Your task to perform on an android device: turn on improve location accuracy Image 0: 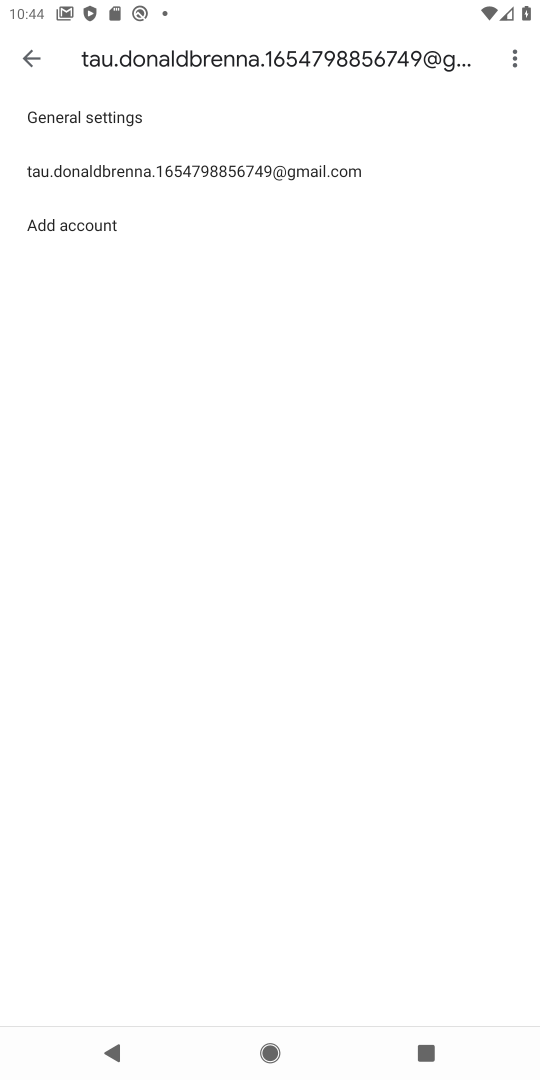
Step 0: press home button
Your task to perform on an android device: turn on improve location accuracy Image 1: 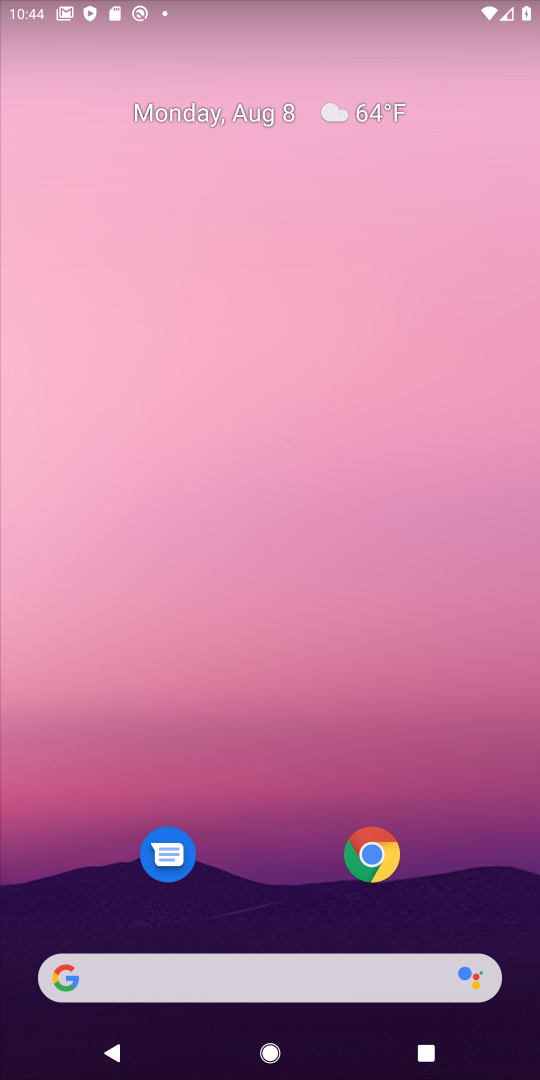
Step 1: drag from (282, 857) to (456, 54)
Your task to perform on an android device: turn on improve location accuracy Image 2: 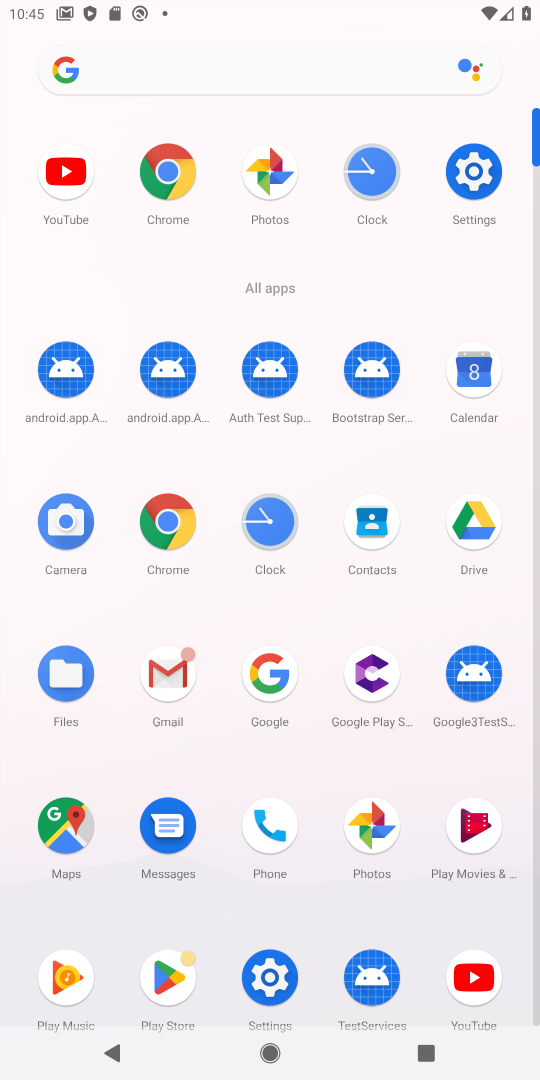
Step 2: click (467, 164)
Your task to perform on an android device: turn on improve location accuracy Image 3: 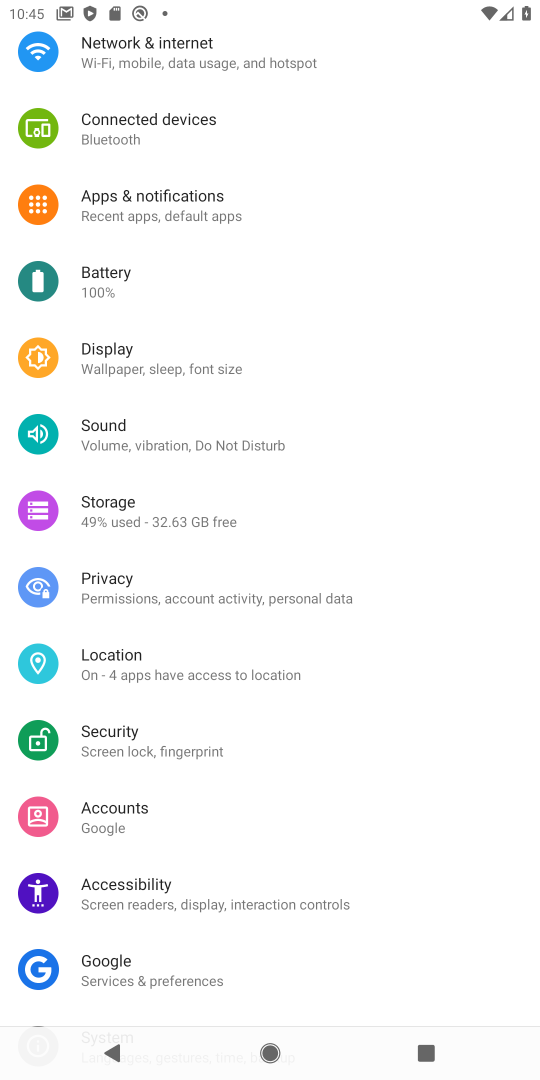
Step 3: click (253, 672)
Your task to perform on an android device: turn on improve location accuracy Image 4: 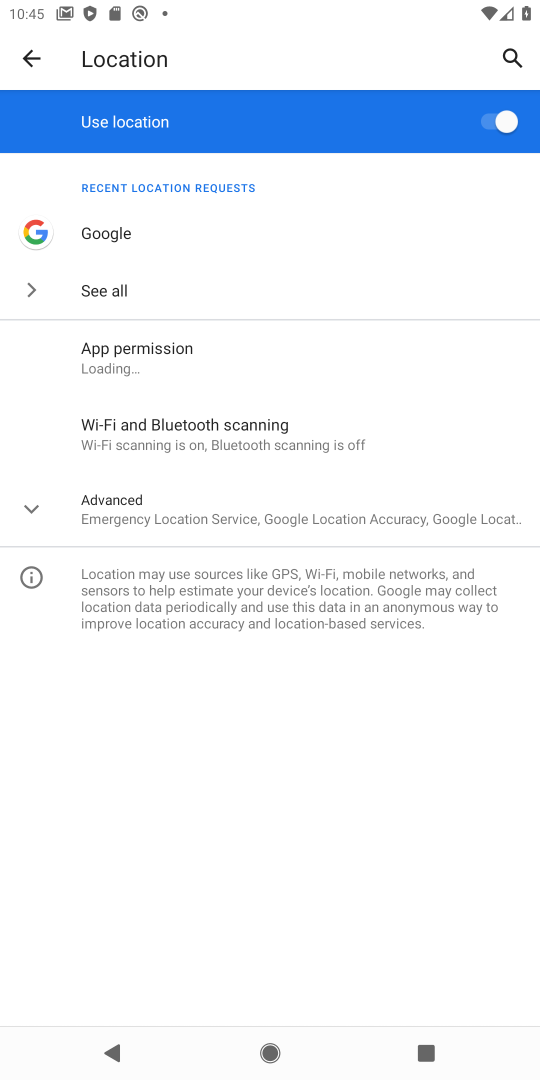
Step 4: click (214, 535)
Your task to perform on an android device: turn on improve location accuracy Image 5: 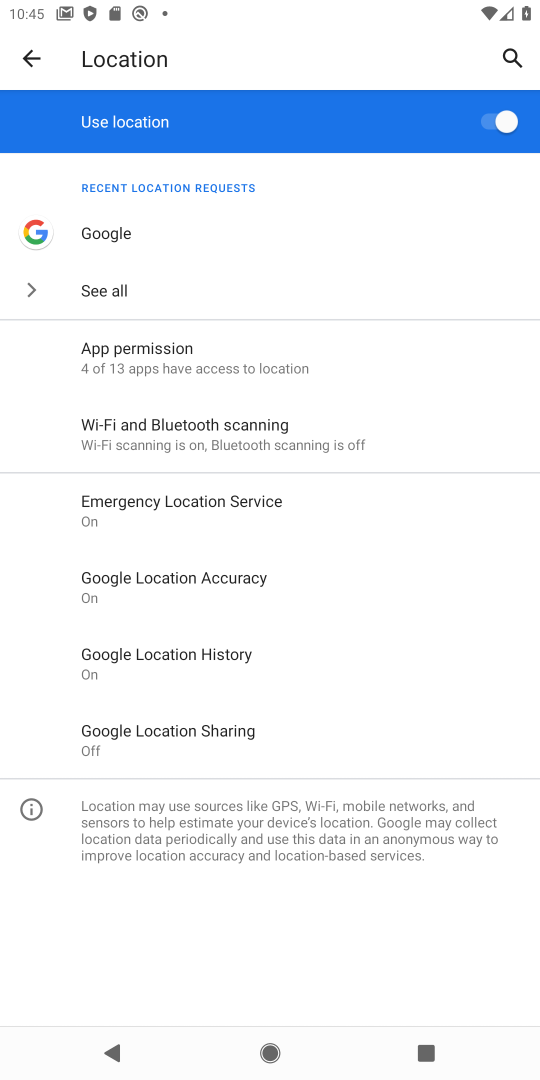
Step 5: click (290, 586)
Your task to perform on an android device: turn on improve location accuracy Image 6: 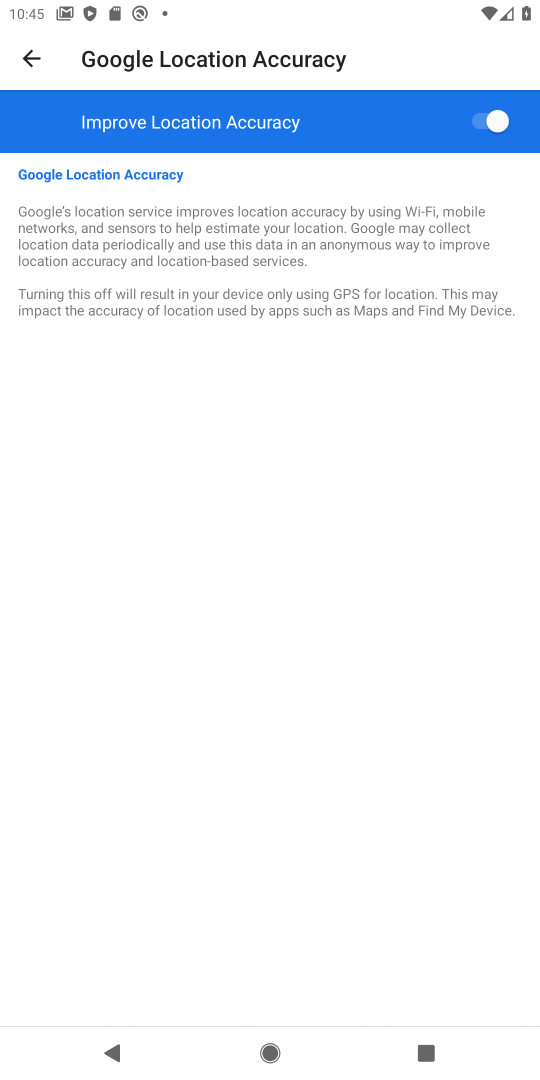
Step 6: task complete